Your task to perform on an android device: turn on showing notifications on the lock screen Image 0: 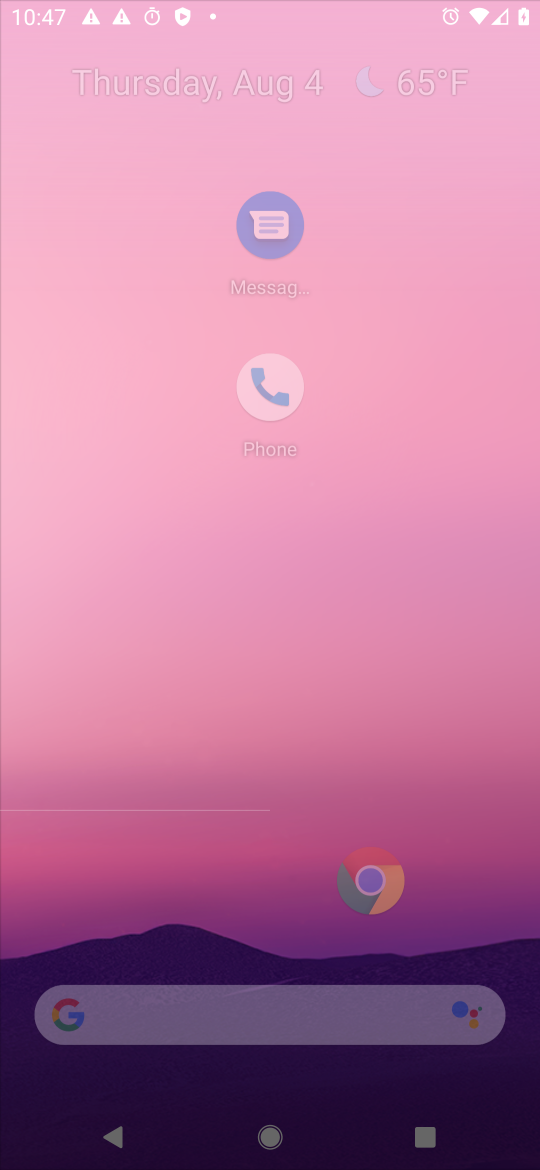
Step 0: click (464, 16)
Your task to perform on an android device: turn on showing notifications on the lock screen Image 1: 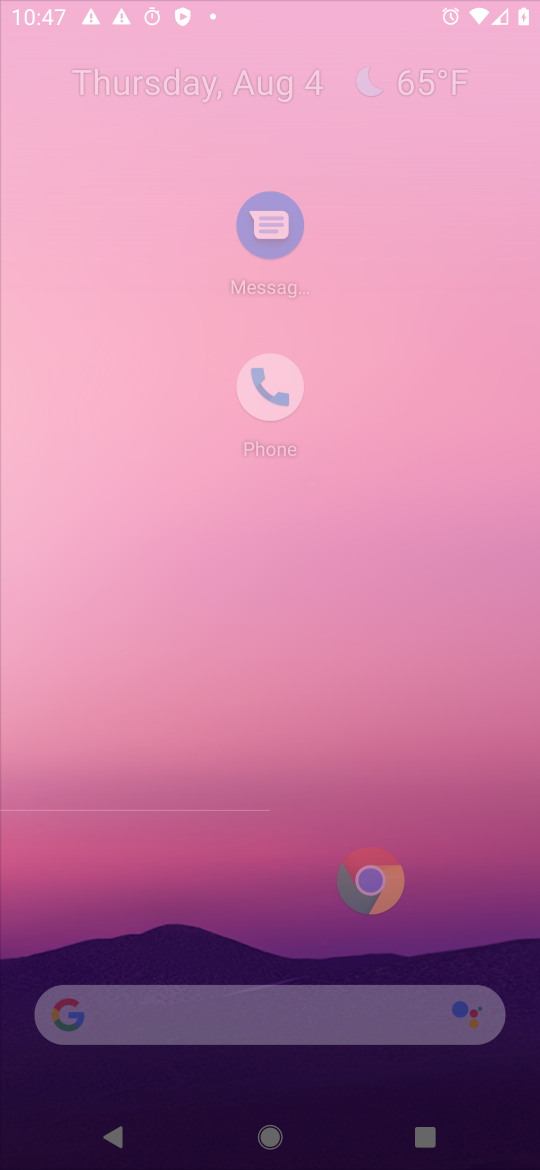
Step 1: press home button
Your task to perform on an android device: turn on showing notifications on the lock screen Image 2: 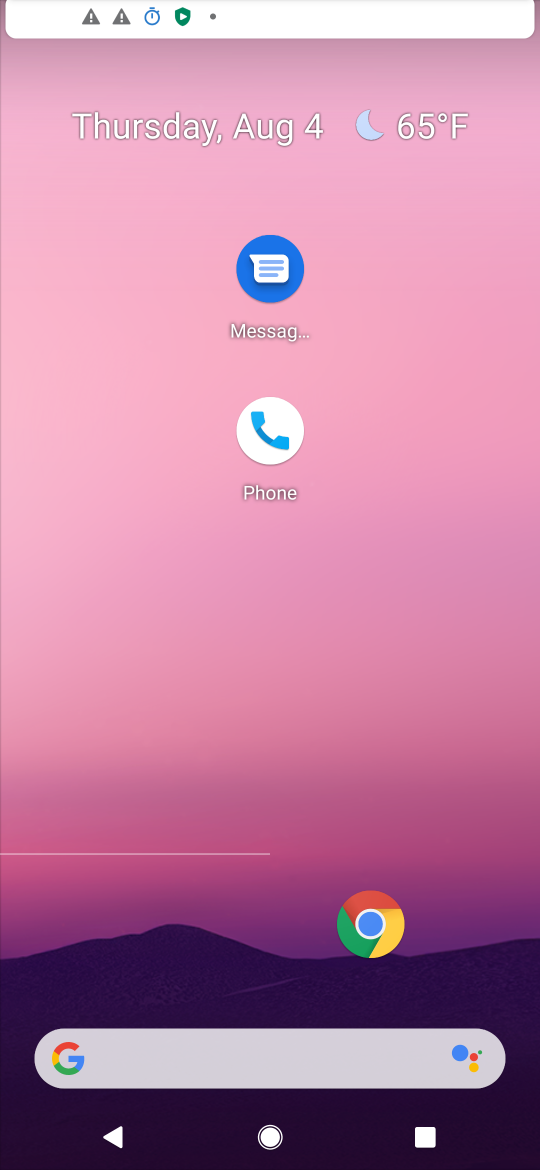
Step 2: press home button
Your task to perform on an android device: turn on showing notifications on the lock screen Image 3: 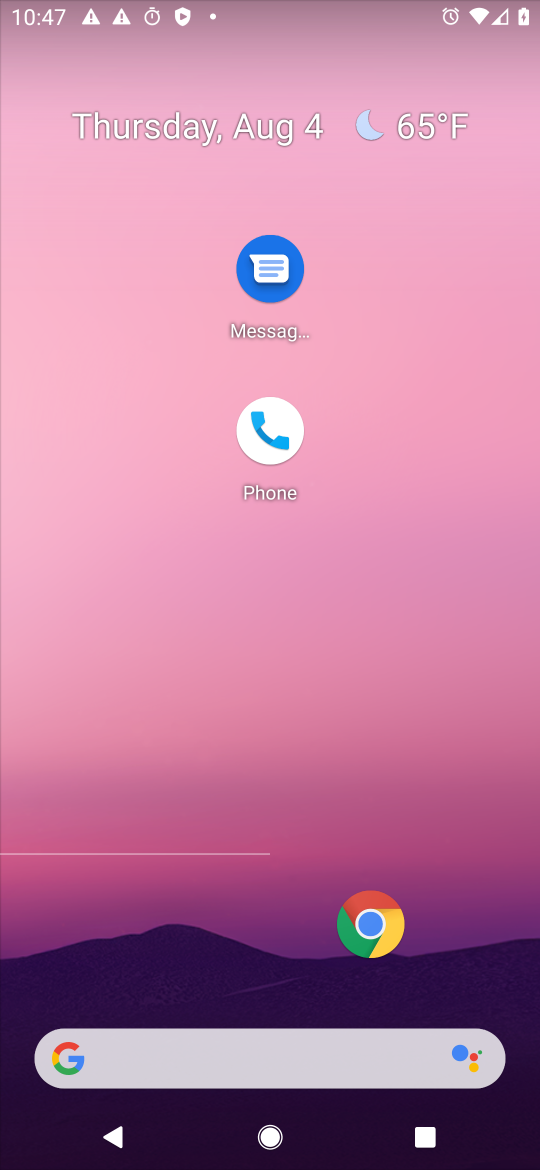
Step 3: click (407, 74)
Your task to perform on an android device: turn on showing notifications on the lock screen Image 4: 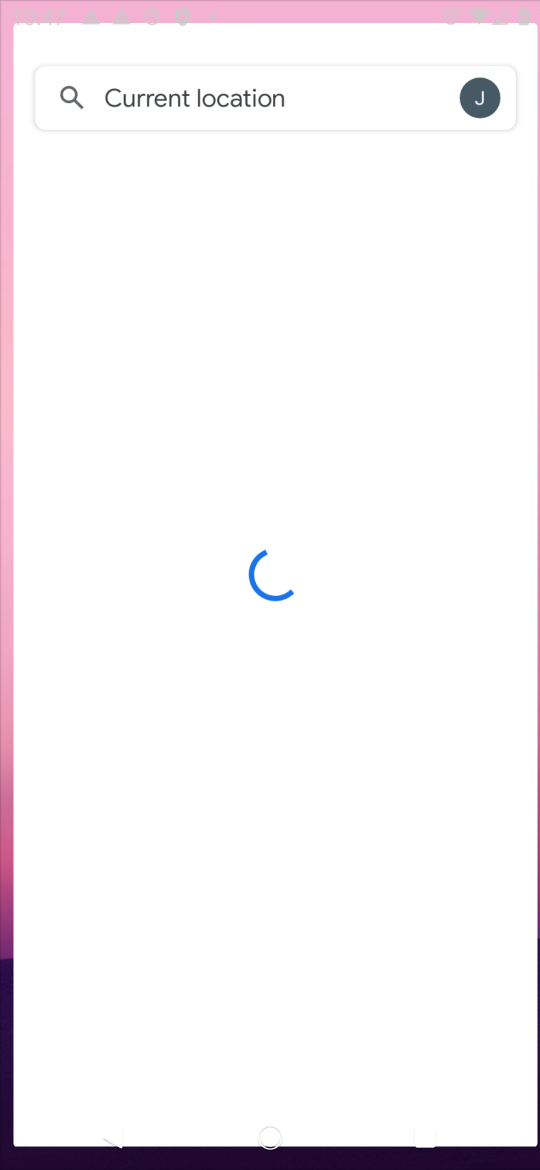
Step 4: click (435, 109)
Your task to perform on an android device: turn on showing notifications on the lock screen Image 5: 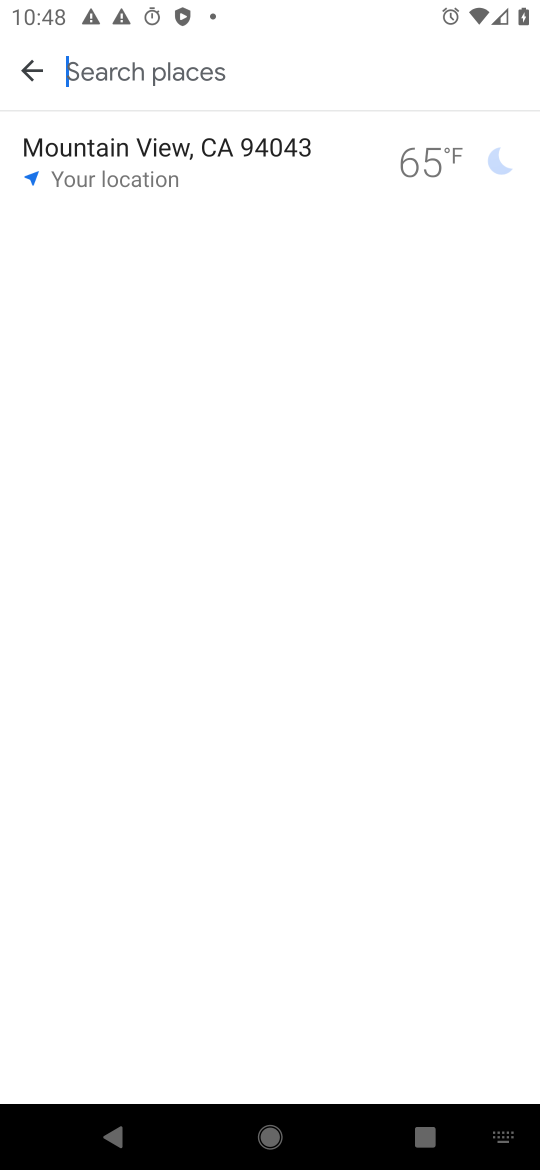
Step 5: press home button
Your task to perform on an android device: turn on showing notifications on the lock screen Image 6: 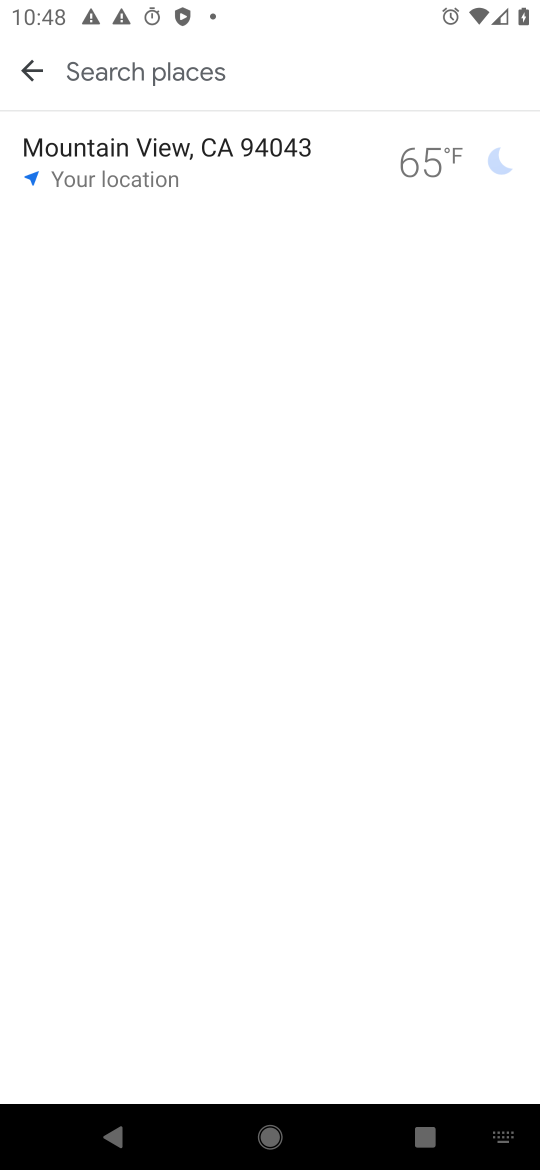
Step 6: drag from (291, 728) to (377, 119)
Your task to perform on an android device: turn on showing notifications on the lock screen Image 7: 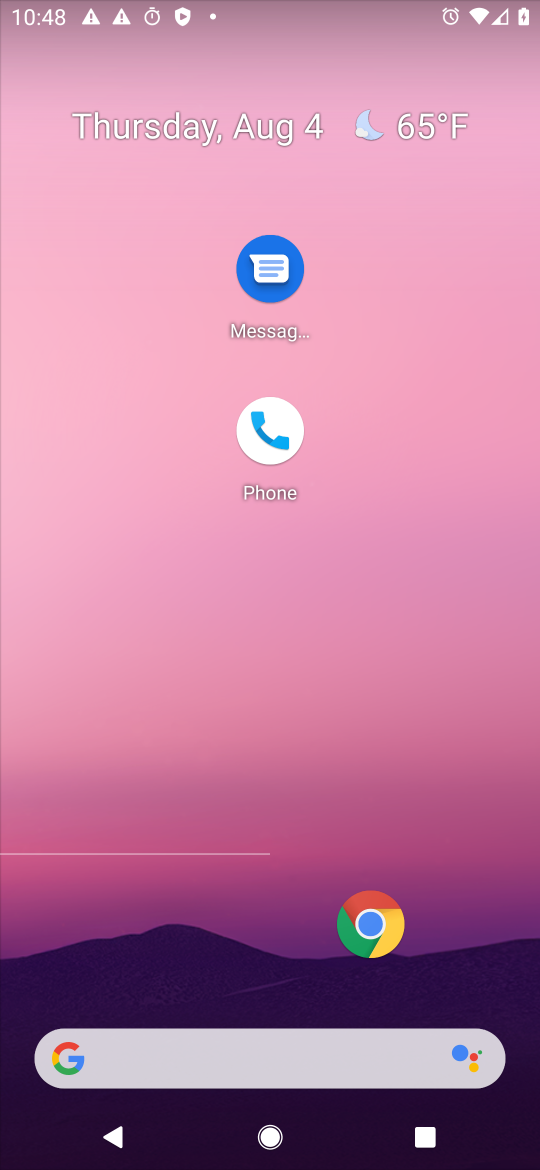
Step 7: drag from (260, 960) to (405, 241)
Your task to perform on an android device: turn on showing notifications on the lock screen Image 8: 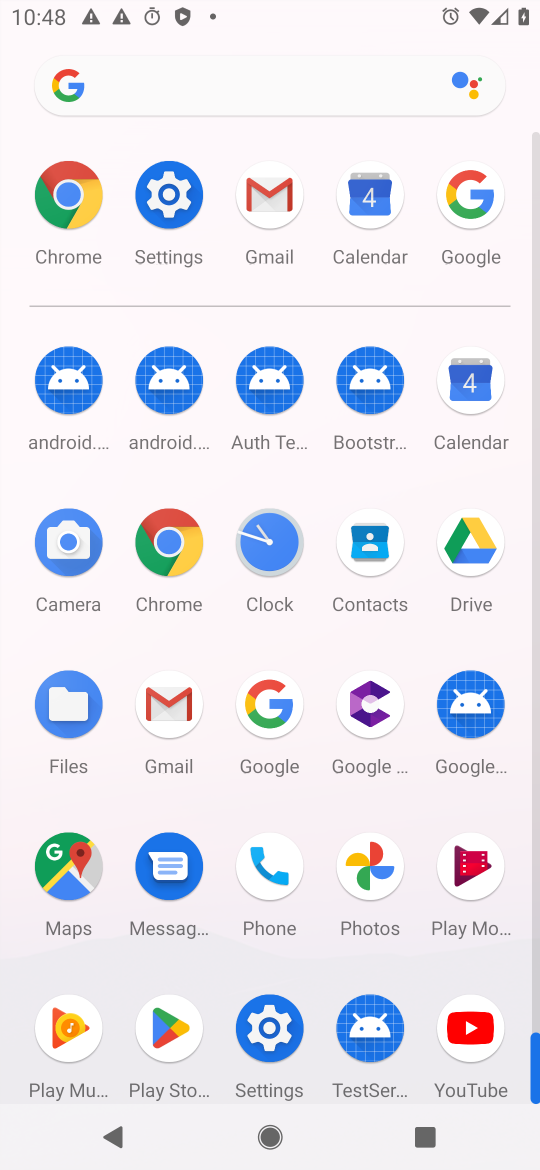
Step 8: click (153, 194)
Your task to perform on an android device: turn on showing notifications on the lock screen Image 9: 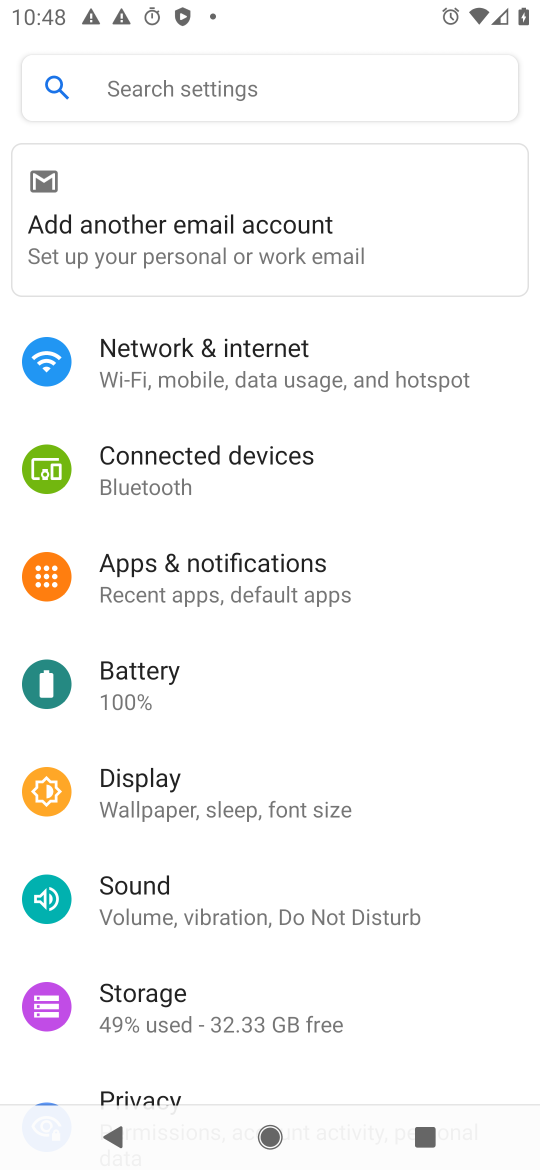
Step 9: drag from (246, 705) to (394, 177)
Your task to perform on an android device: turn on showing notifications on the lock screen Image 10: 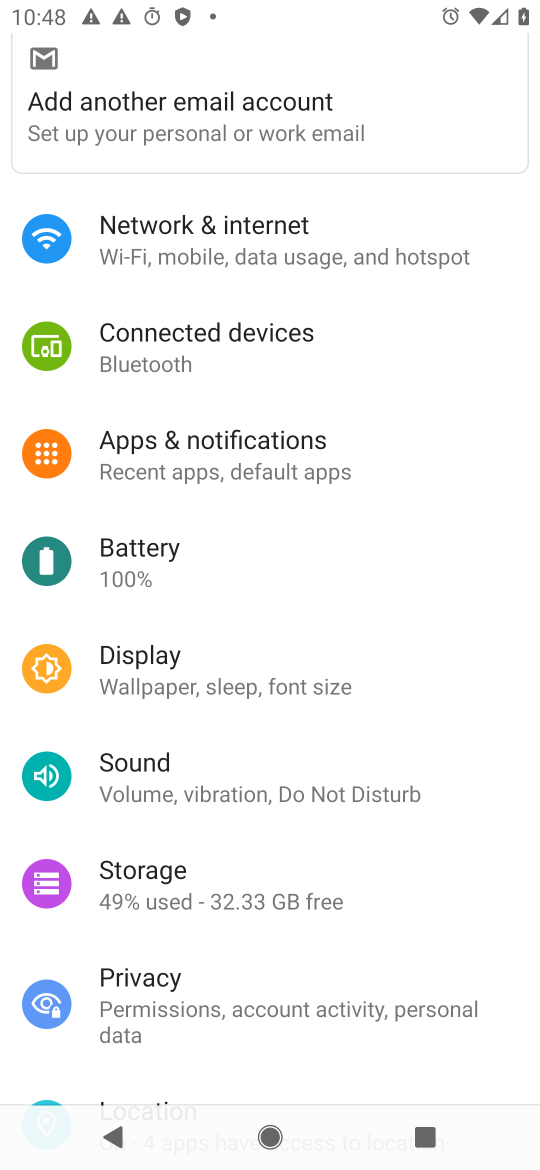
Step 10: click (259, 441)
Your task to perform on an android device: turn on showing notifications on the lock screen Image 11: 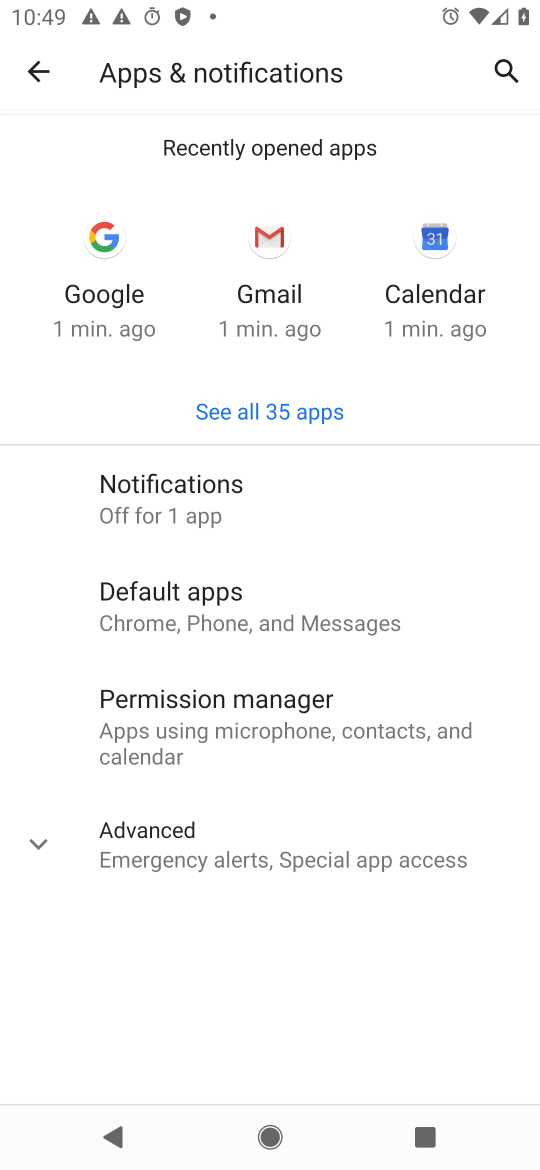
Step 11: click (234, 436)
Your task to perform on an android device: turn on showing notifications on the lock screen Image 12: 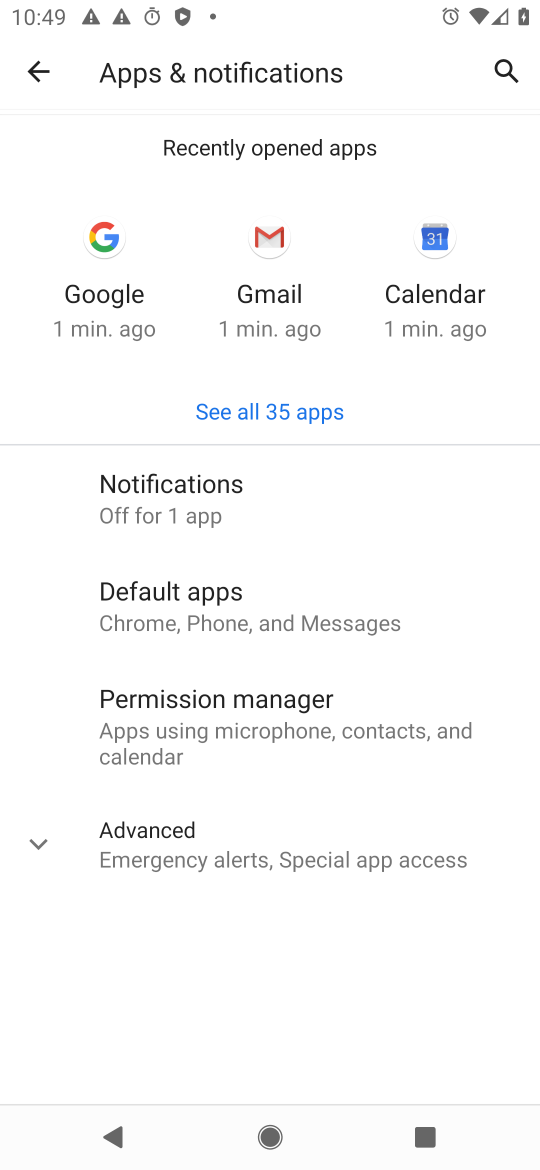
Step 12: drag from (234, 436) to (399, 446)
Your task to perform on an android device: turn on showing notifications on the lock screen Image 13: 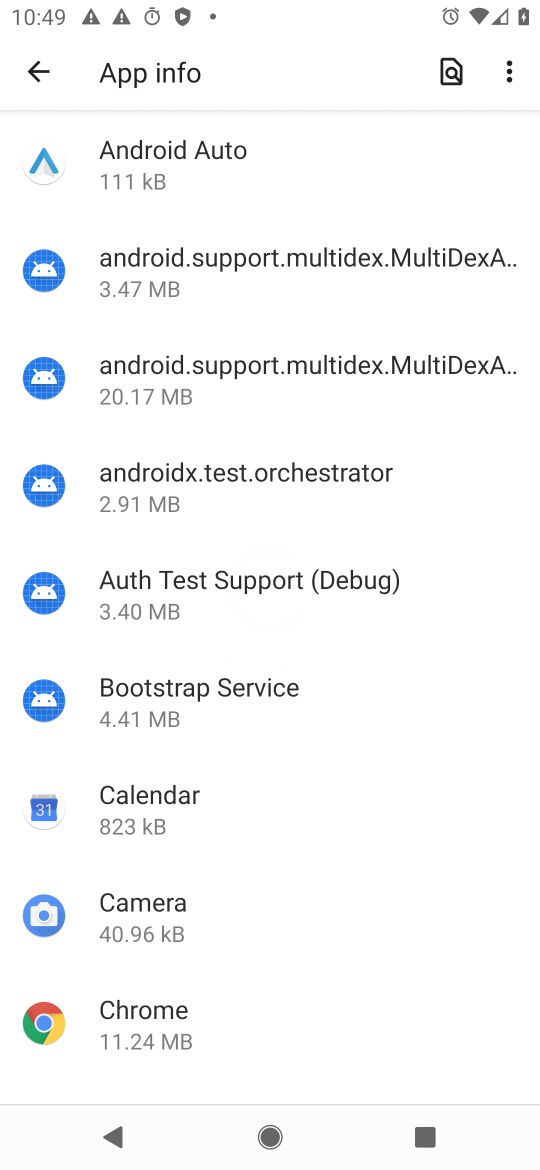
Step 13: drag from (137, 995) to (398, 285)
Your task to perform on an android device: turn on showing notifications on the lock screen Image 14: 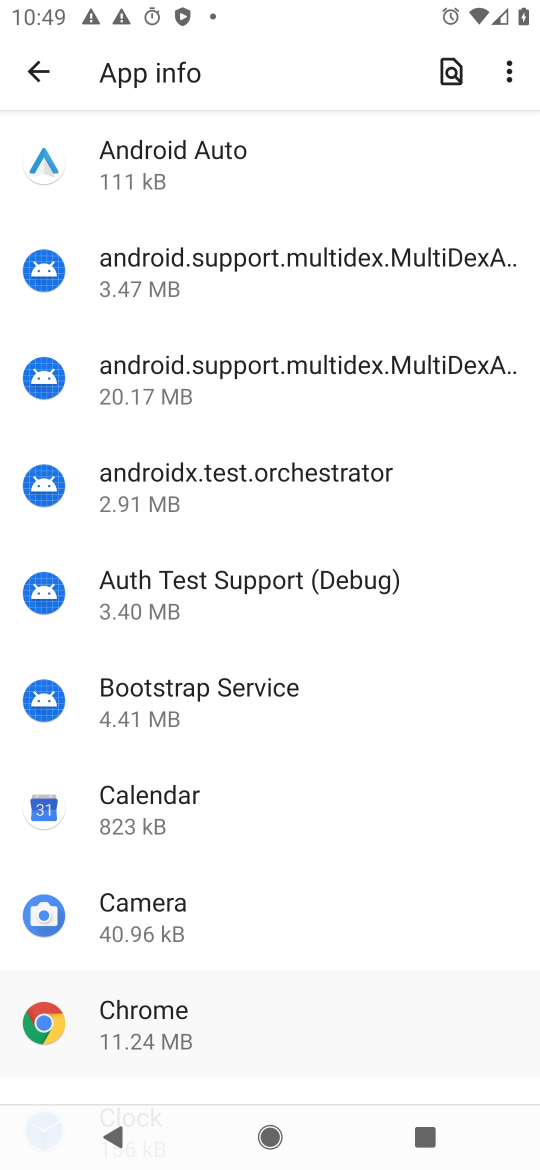
Step 14: drag from (277, 809) to (349, 400)
Your task to perform on an android device: turn on showing notifications on the lock screen Image 15: 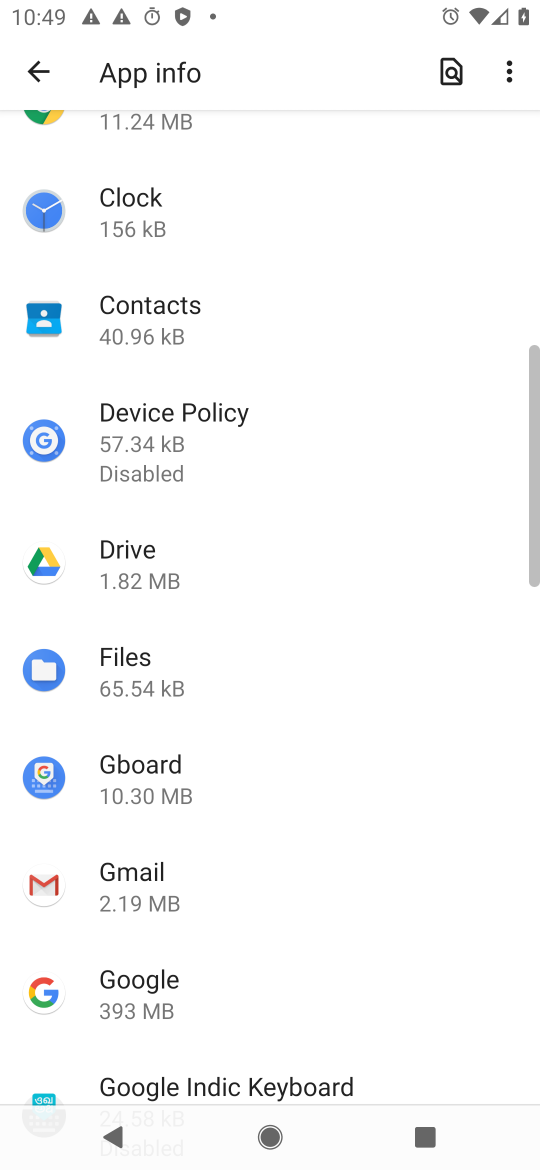
Step 15: click (47, 61)
Your task to perform on an android device: turn on showing notifications on the lock screen Image 16: 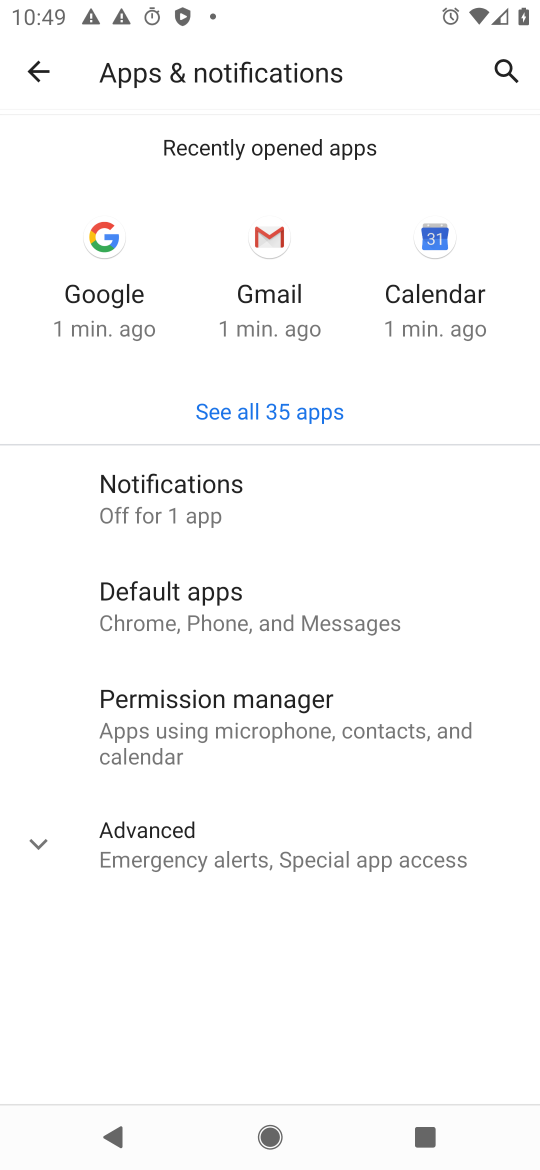
Step 16: drag from (256, 847) to (325, 416)
Your task to perform on an android device: turn on showing notifications on the lock screen Image 17: 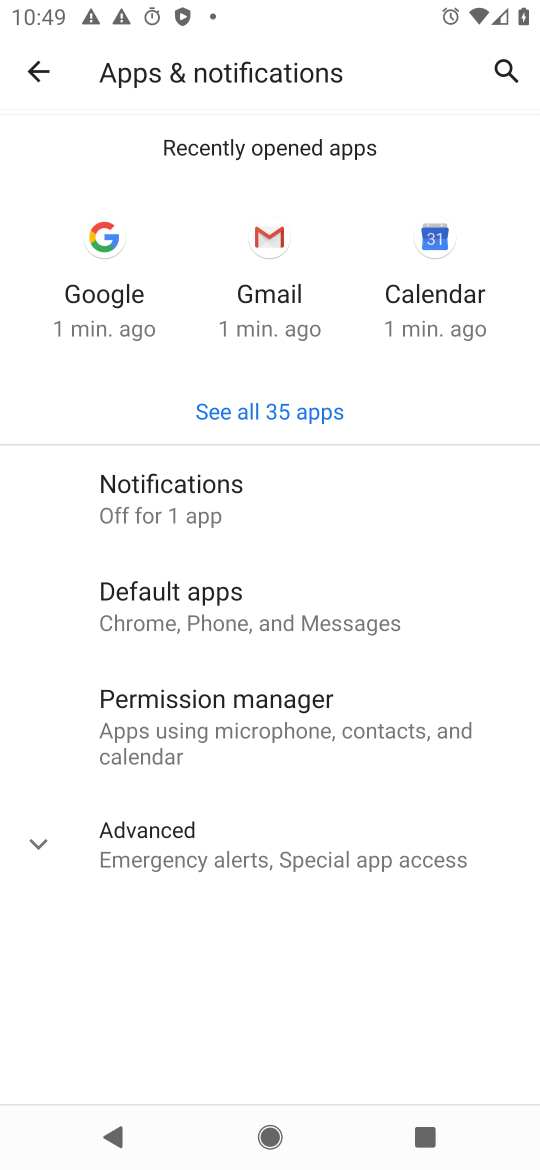
Step 17: press back button
Your task to perform on an android device: turn on showing notifications on the lock screen Image 18: 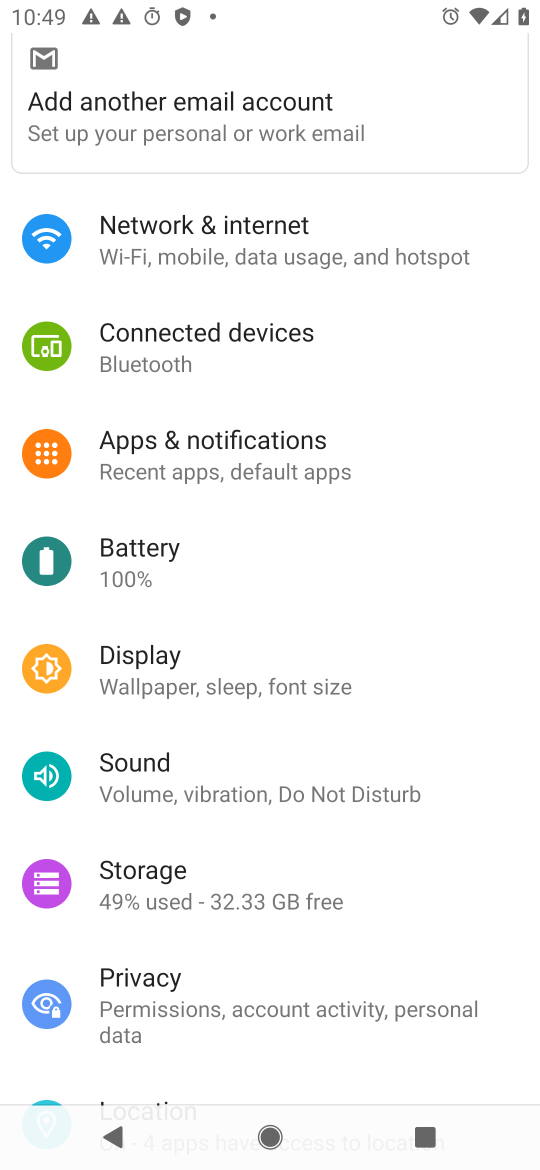
Step 18: click (263, 474)
Your task to perform on an android device: turn on showing notifications on the lock screen Image 19: 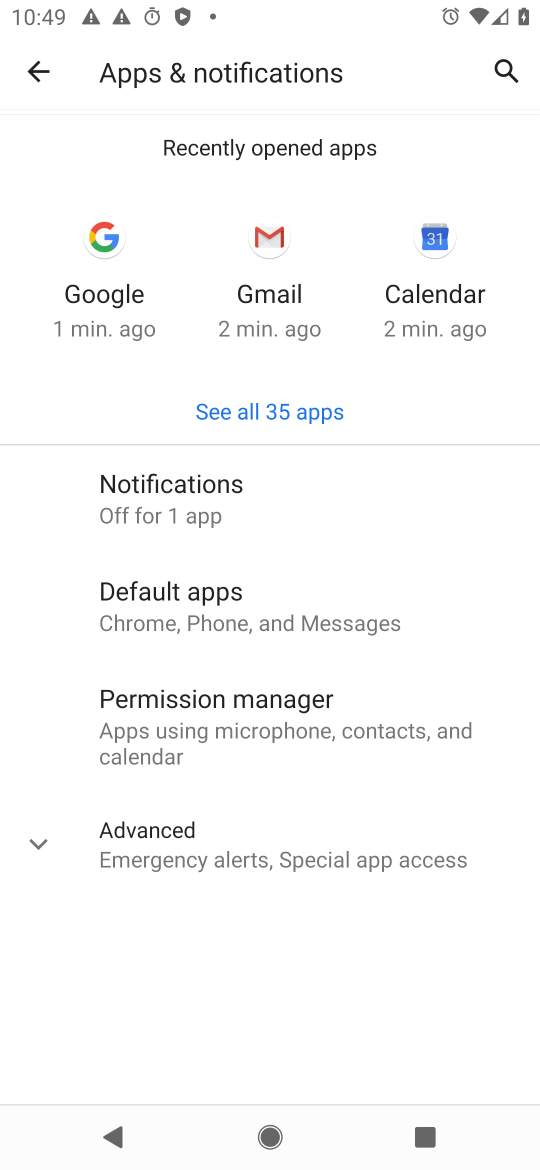
Step 19: click (280, 491)
Your task to perform on an android device: turn on showing notifications on the lock screen Image 20: 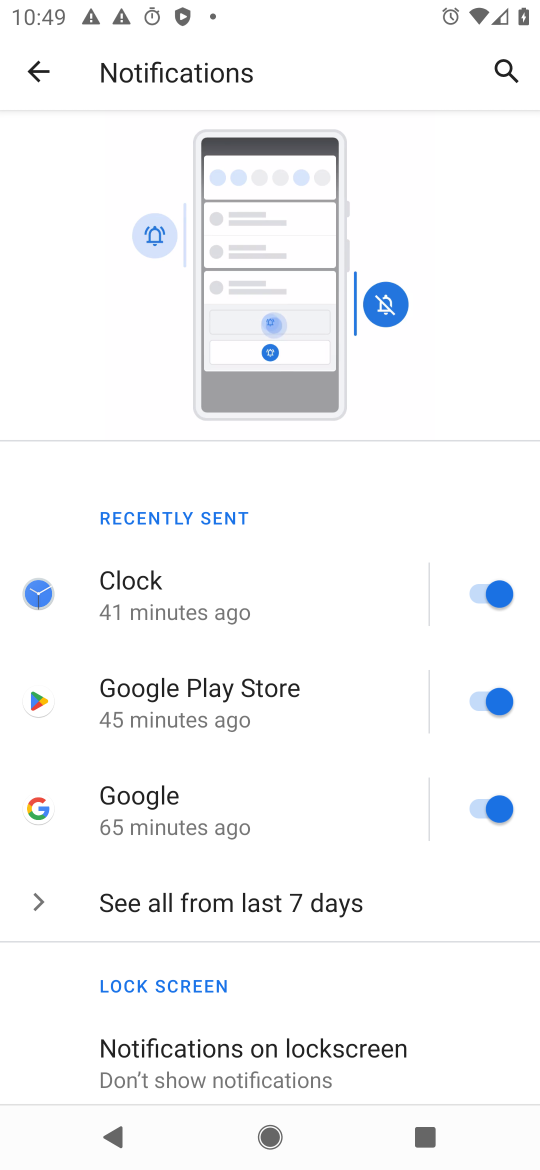
Step 20: click (265, 1039)
Your task to perform on an android device: turn on showing notifications on the lock screen Image 21: 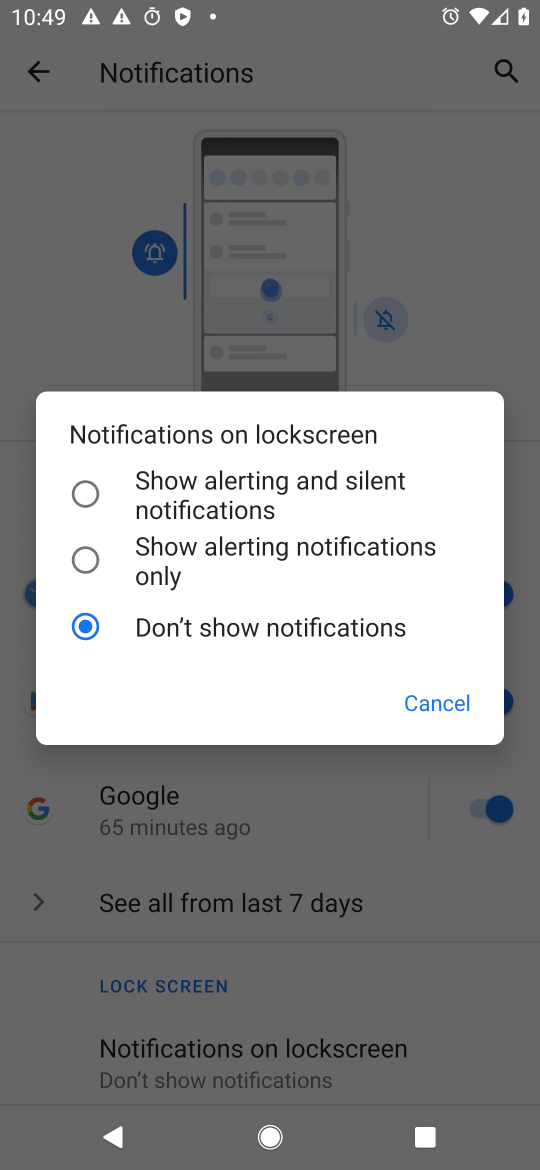
Step 21: click (119, 472)
Your task to perform on an android device: turn on showing notifications on the lock screen Image 22: 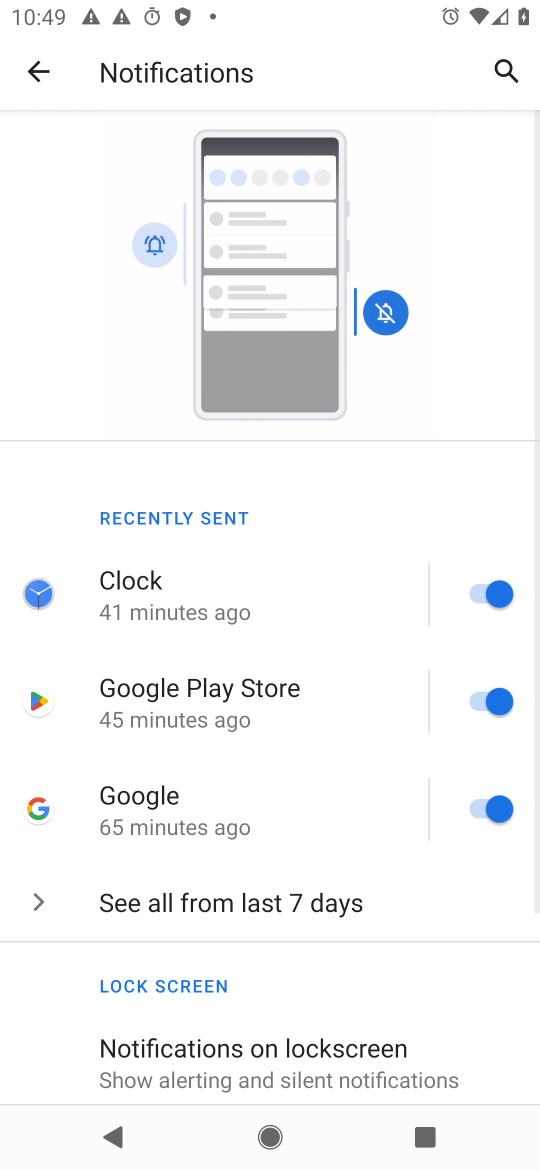
Step 22: task complete